Your task to perform on an android device: When is my next appointment? Image 0: 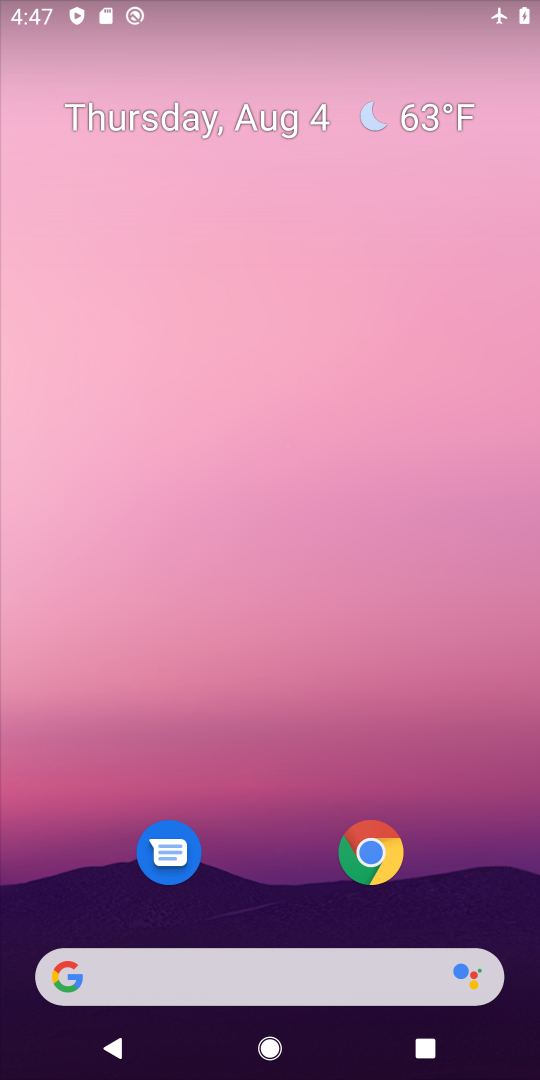
Step 0: drag from (272, 913) to (283, 201)
Your task to perform on an android device: When is my next appointment? Image 1: 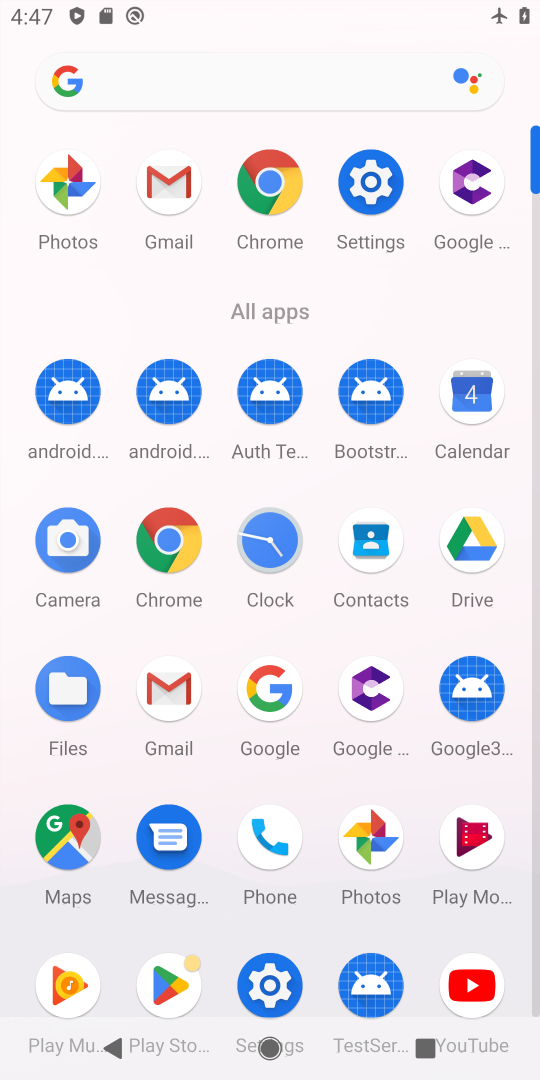
Step 1: click (468, 405)
Your task to perform on an android device: When is my next appointment? Image 2: 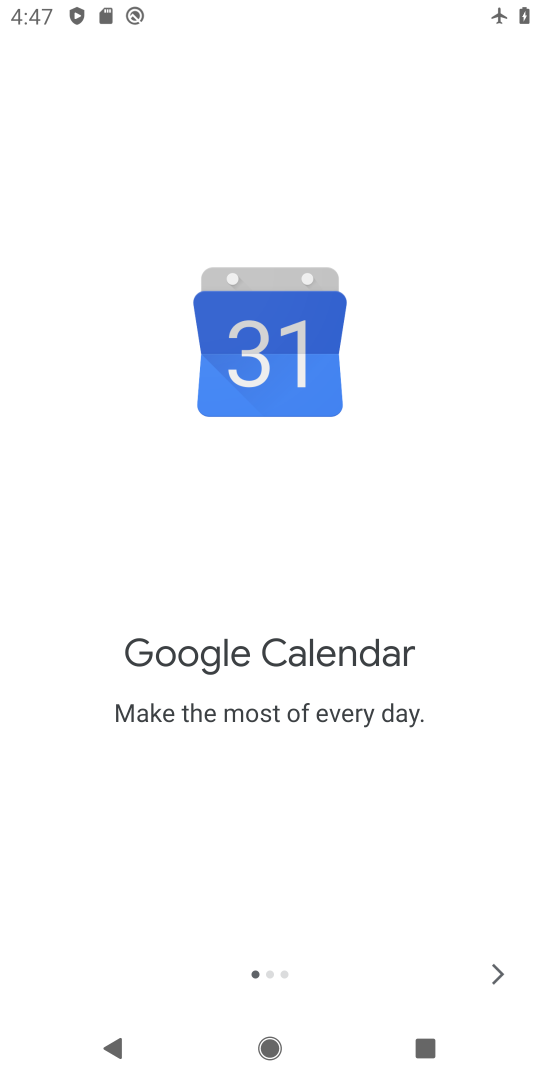
Step 2: click (500, 986)
Your task to perform on an android device: When is my next appointment? Image 3: 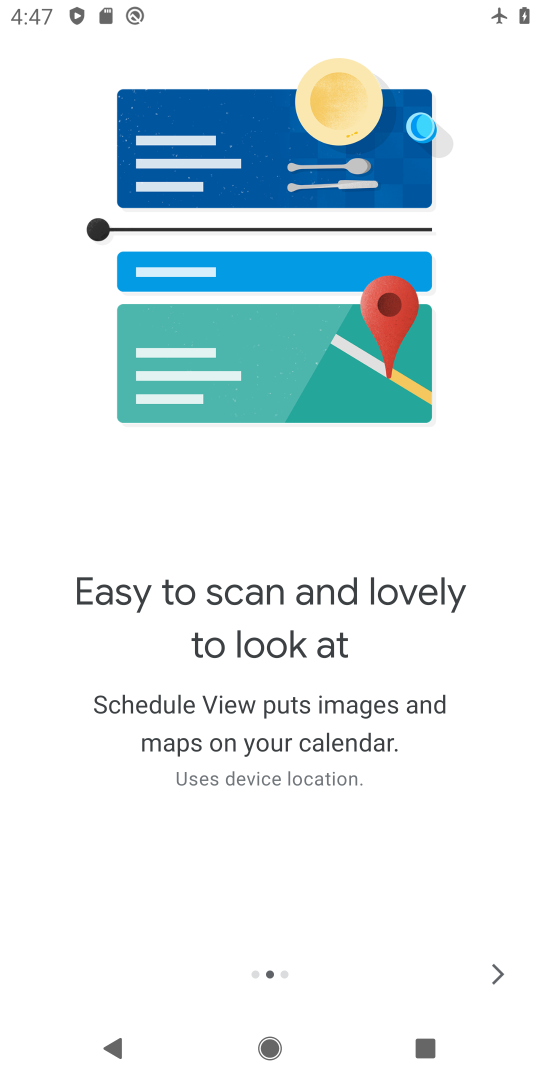
Step 3: click (499, 973)
Your task to perform on an android device: When is my next appointment? Image 4: 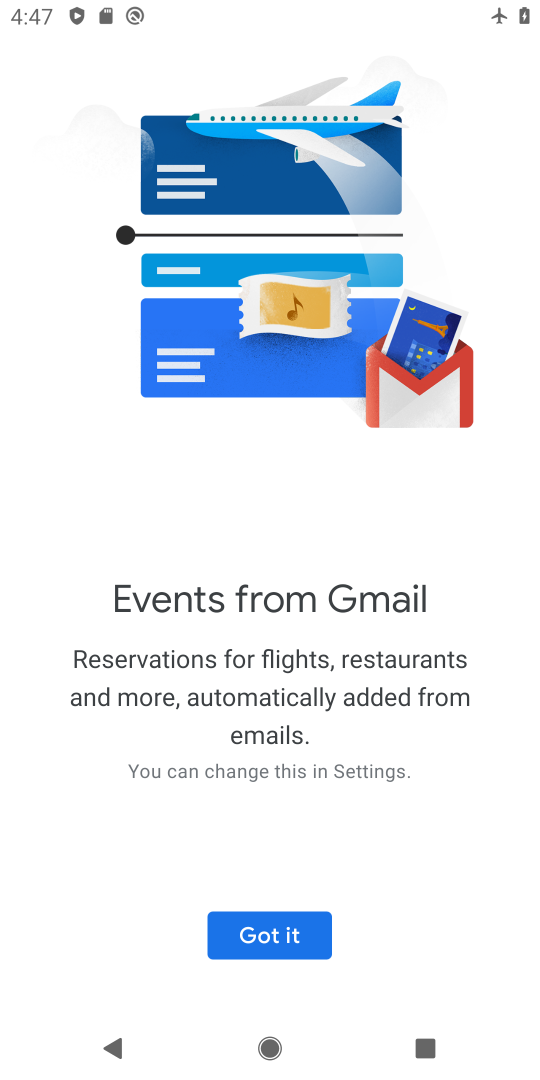
Step 4: click (290, 932)
Your task to perform on an android device: When is my next appointment? Image 5: 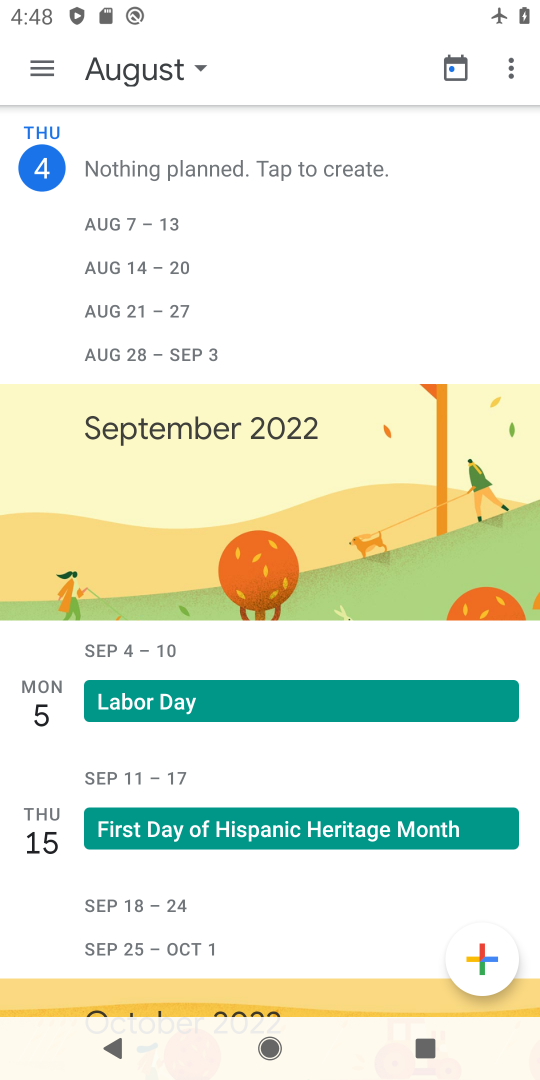
Step 5: click (138, 72)
Your task to perform on an android device: When is my next appointment? Image 6: 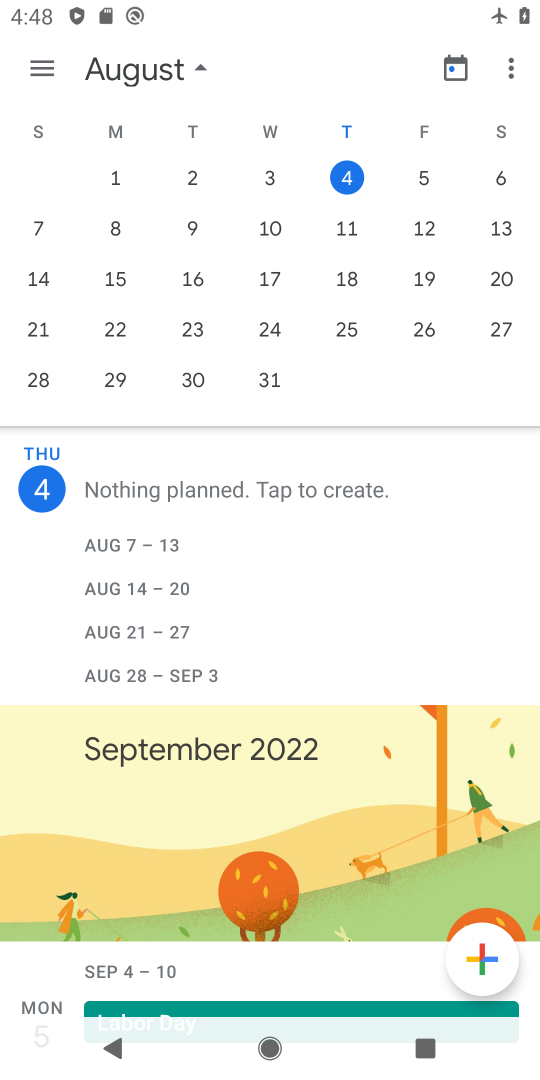
Step 6: click (426, 173)
Your task to perform on an android device: When is my next appointment? Image 7: 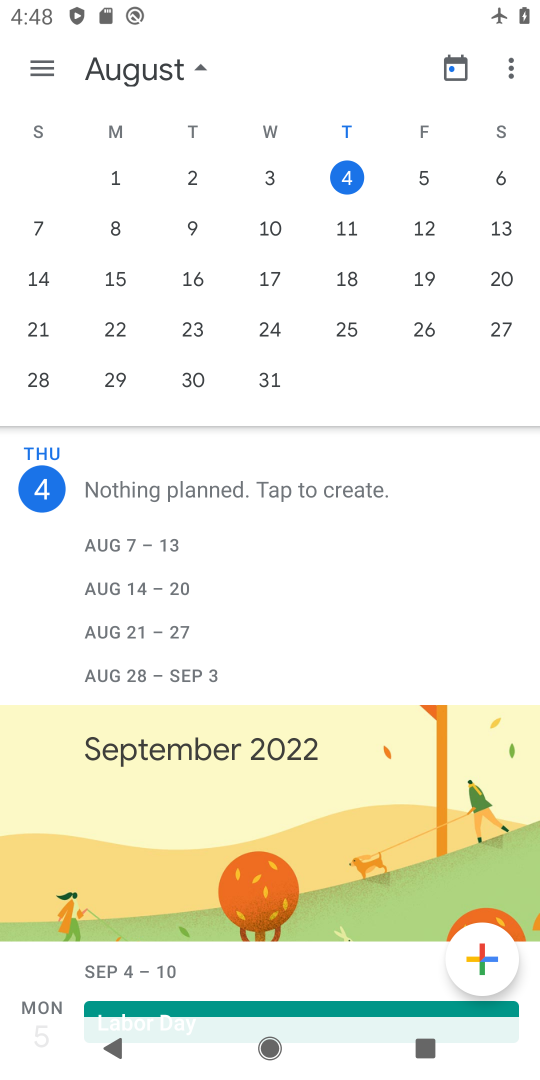
Step 7: click (423, 173)
Your task to perform on an android device: When is my next appointment? Image 8: 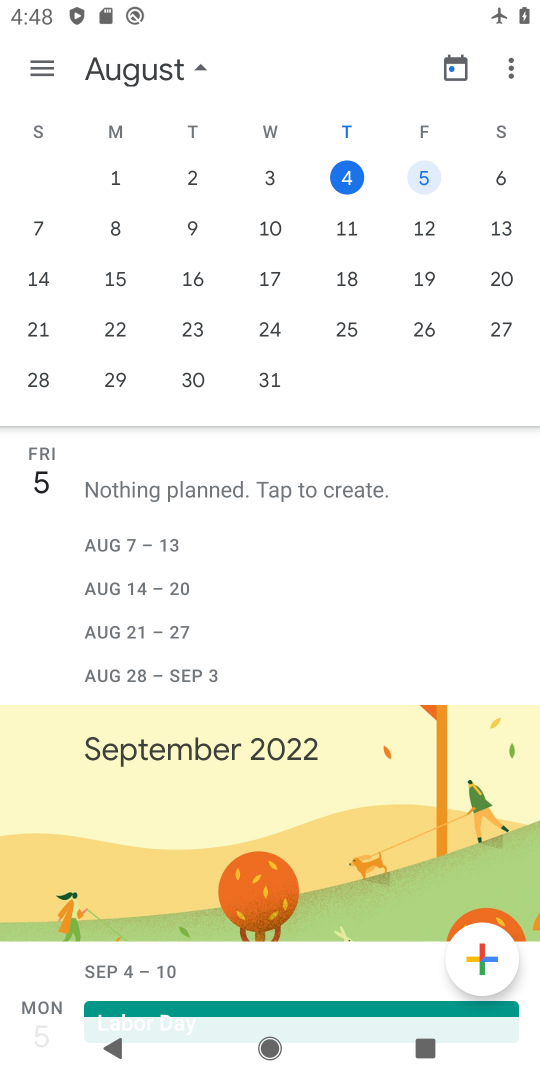
Step 8: click (425, 172)
Your task to perform on an android device: When is my next appointment? Image 9: 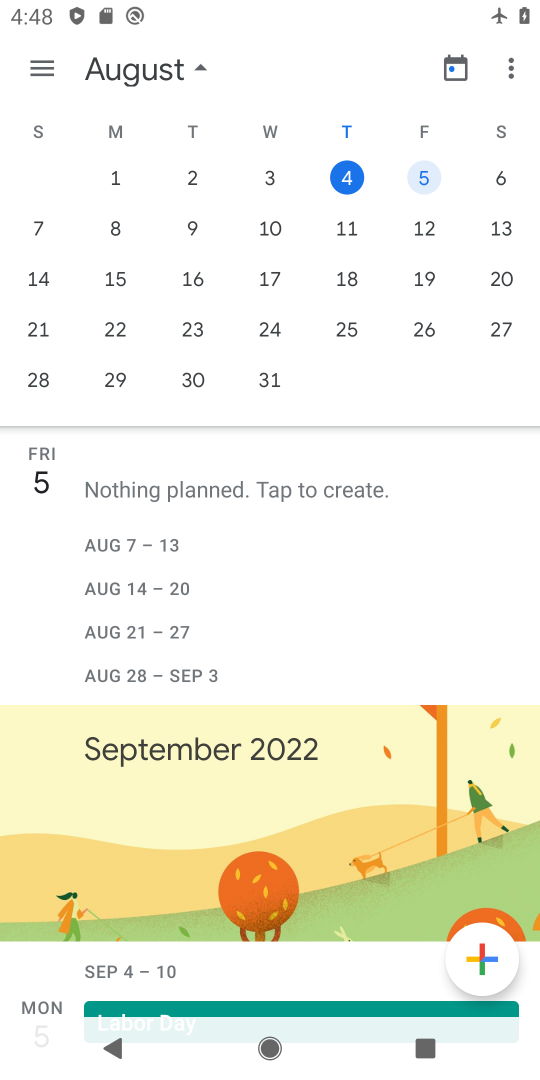
Step 9: task complete